Your task to perform on an android device: toggle notification dots Image 0: 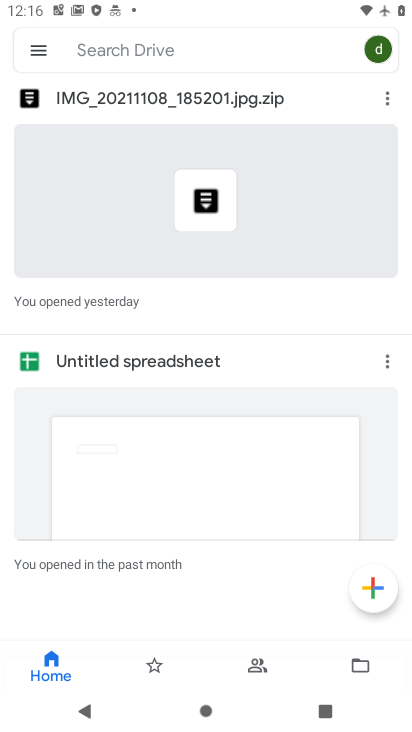
Step 0: press home button
Your task to perform on an android device: toggle notification dots Image 1: 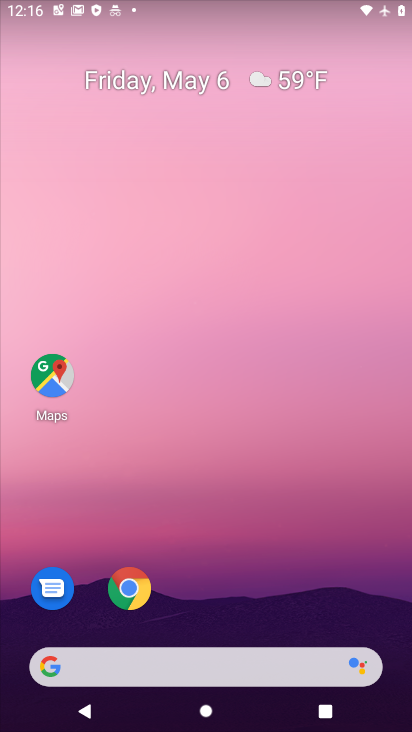
Step 1: drag from (194, 664) to (395, 244)
Your task to perform on an android device: toggle notification dots Image 2: 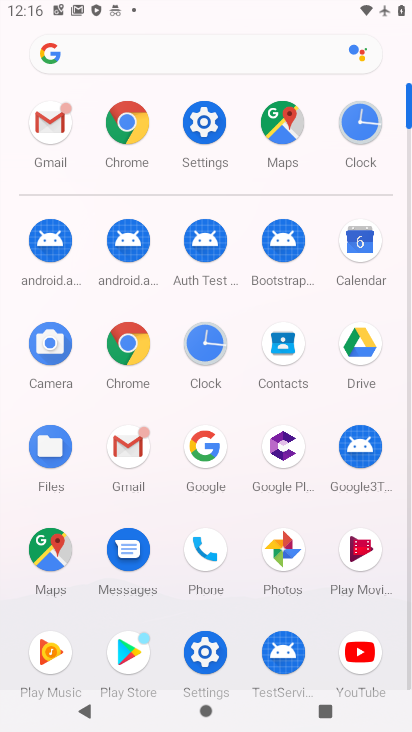
Step 2: click (201, 128)
Your task to perform on an android device: toggle notification dots Image 3: 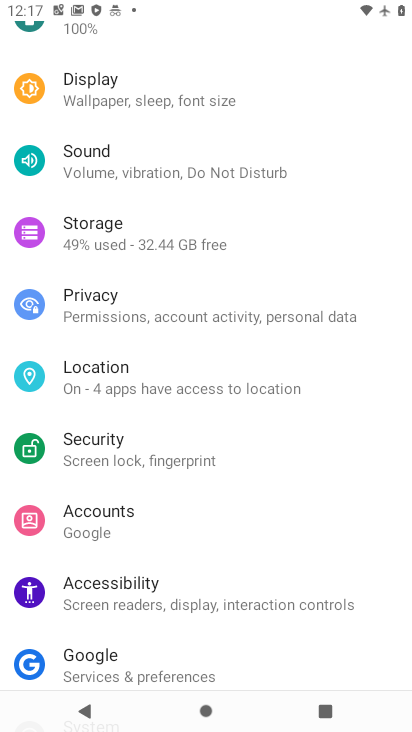
Step 3: drag from (289, 57) to (252, 517)
Your task to perform on an android device: toggle notification dots Image 4: 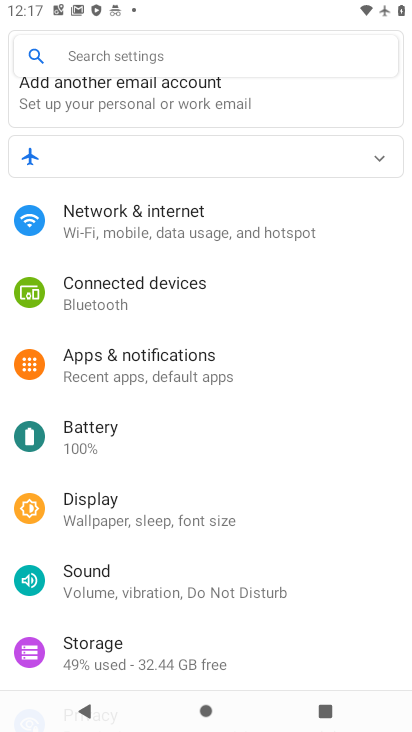
Step 4: click (192, 369)
Your task to perform on an android device: toggle notification dots Image 5: 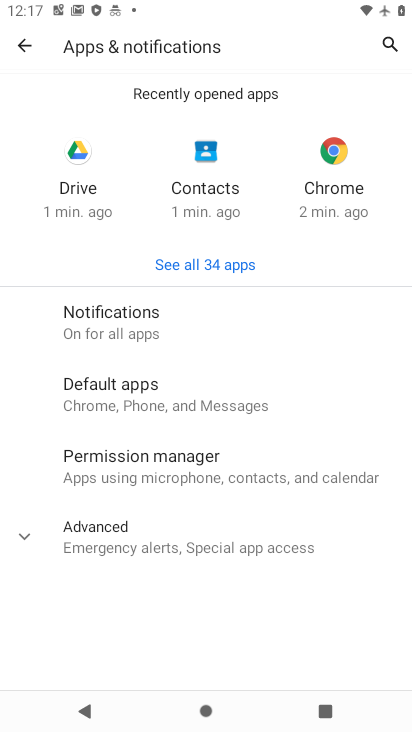
Step 5: click (149, 329)
Your task to perform on an android device: toggle notification dots Image 6: 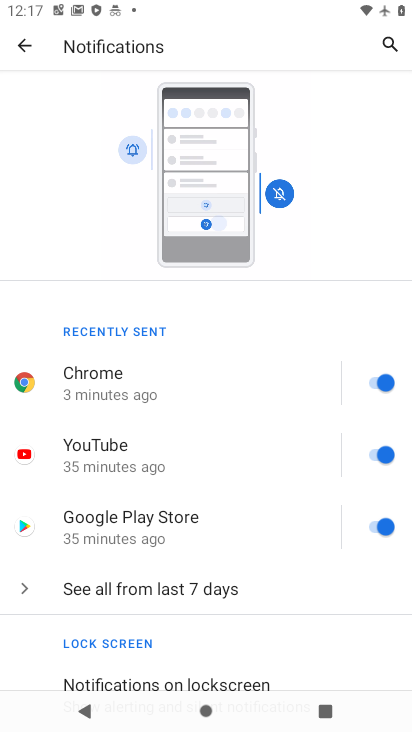
Step 6: drag from (223, 577) to (363, 224)
Your task to perform on an android device: toggle notification dots Image 7: 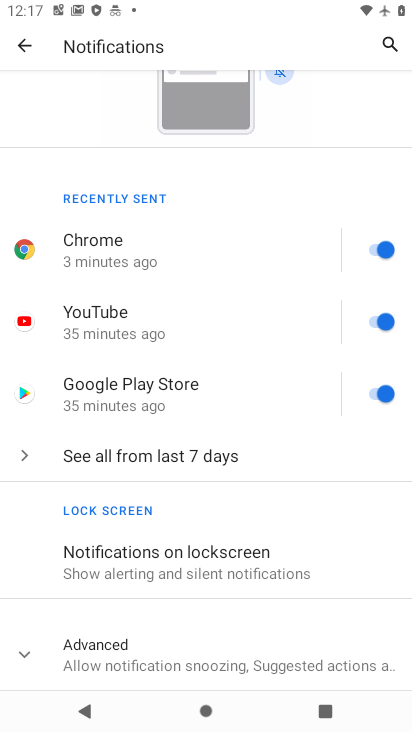
Step 7: click (116, 652)
Your task to perform on an android device: toggle notification dots Image 8: 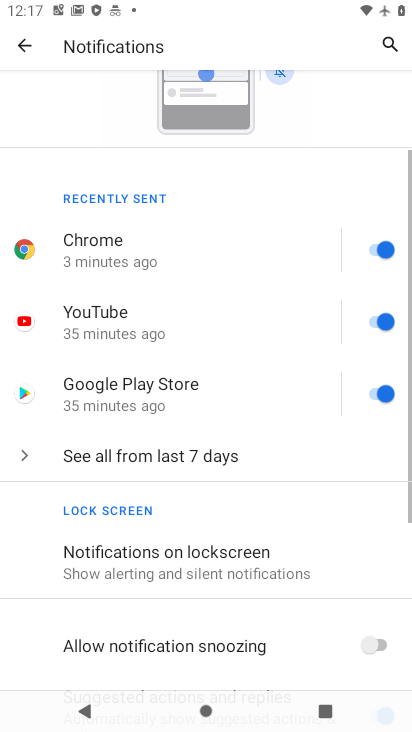
Step 8: drag from (133, 664) to (329, 266)
Your task to perform on an android device: toggle notification dots Image 9: 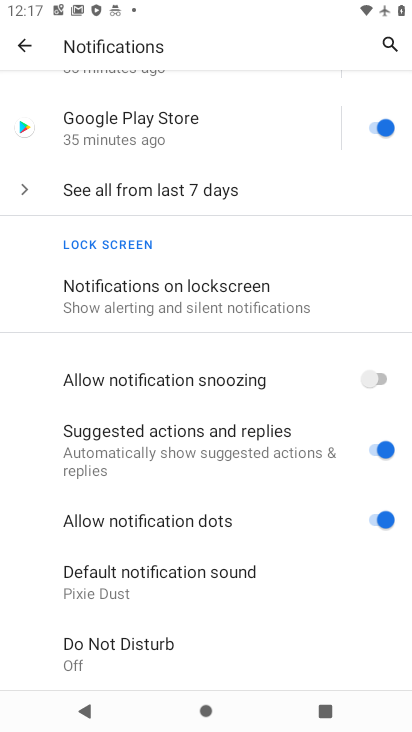
Step 9: click (376, 516)
Your task to perform on an android device: toggle notification dots Image 10: 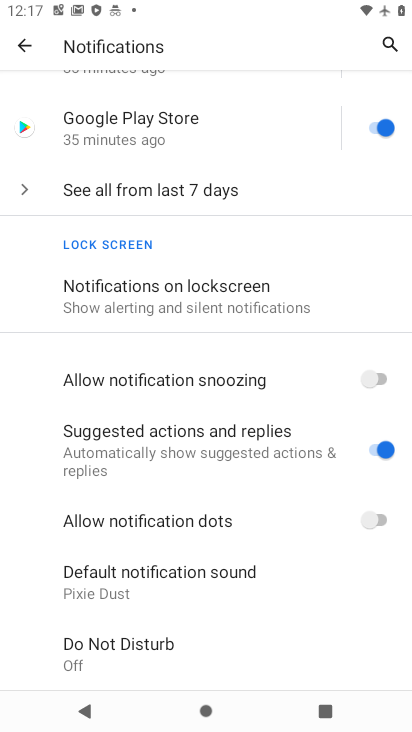
Step 10: task complete